Your task to perform on an android device: Open the calendar and show me this week's events? Image 0: 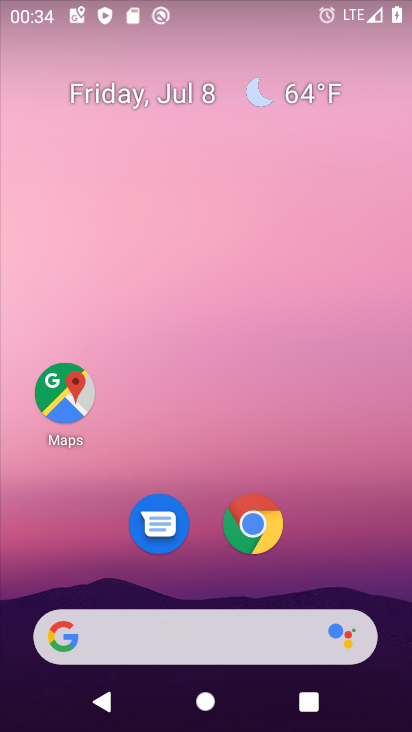
Step 0: drag from (330, 525) to (335, 7)
Your task to perform on an android device: Open the calendar and show me this week's events? Image 1: 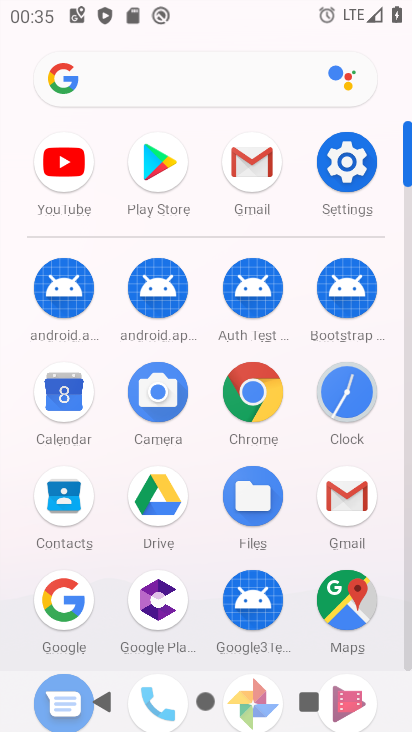
Step 1: click (82, 370)
Your task to perform on an android device: Open the calendar and show me this week's events? Image 2: 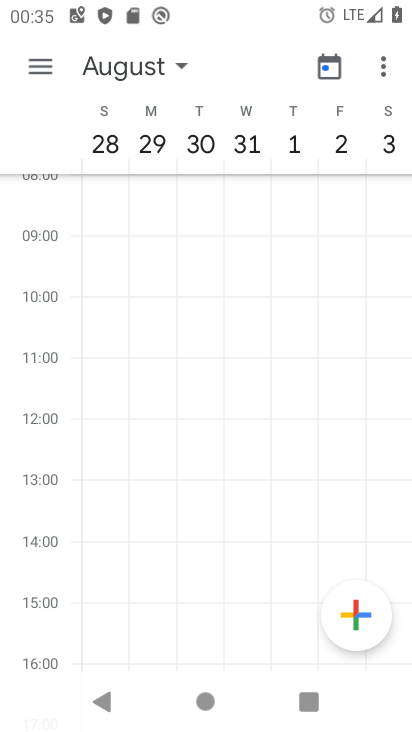
Step 2: click (36, 62)
Your task to perform on an android device: Open the calendar and show me this week's events? Image 3: 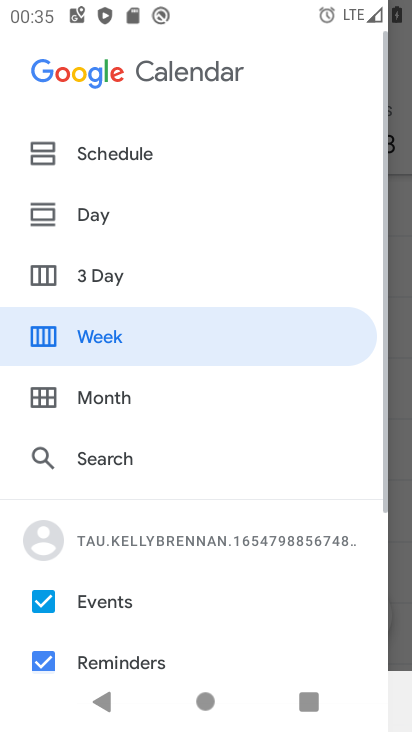
Step 3: click (78, 401)
Your task to perform on an android device: Open the calendar and show me this week's events? Image 4: 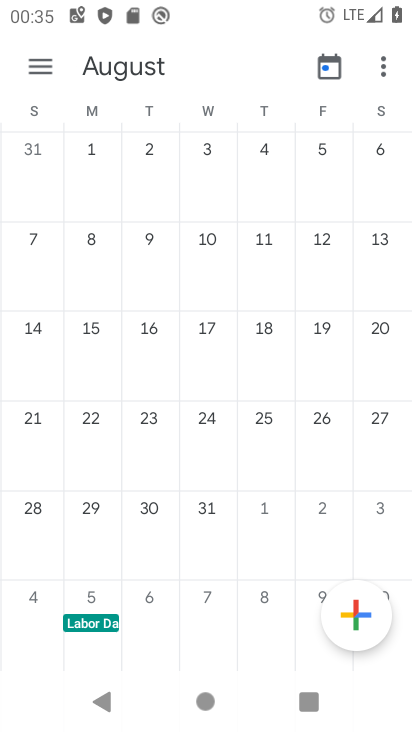
Step 4: drag from (115, 387) to (411, 389)
Your task to perform on an android device: Open the calendar and show me this week's events? Image 5: 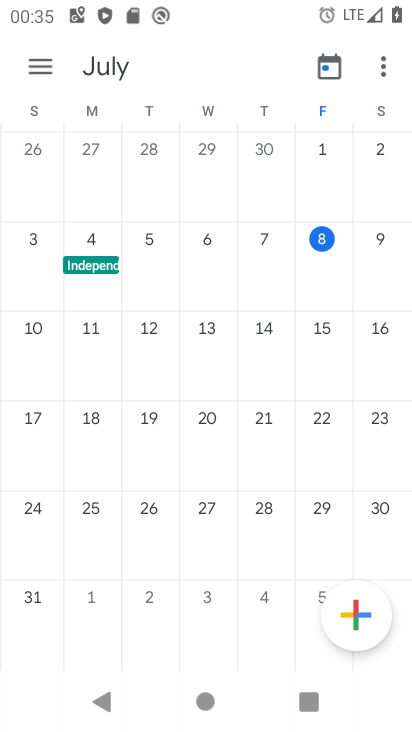
Step 5: click (326, 262)
Your task to perform on an android device: Open the calendar and show me this week's events? Image 6: 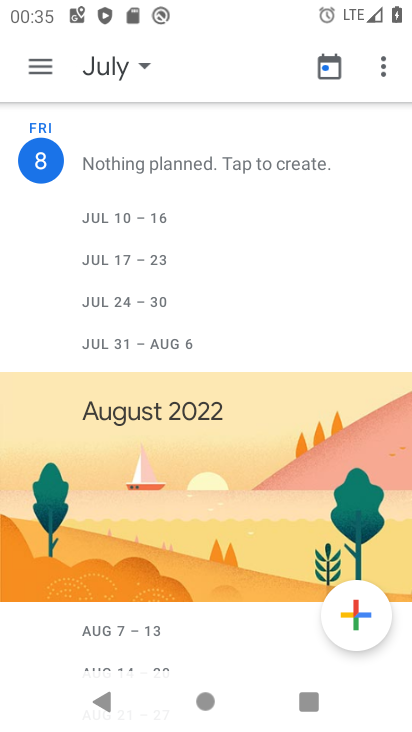
Step 6: click (42, 54)
Your task to perform on an android device: Open the calendar and show me this week's events? Image 7: 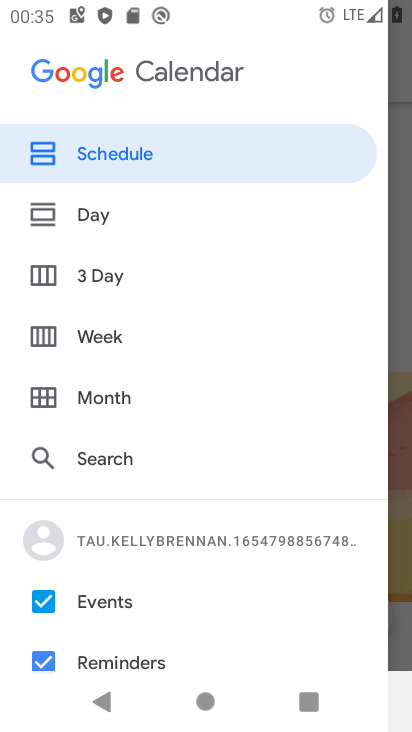
Step 7: click (45, 335)
Your task to perform on an android device: Open the calendar and show me this week's events? Image 8: 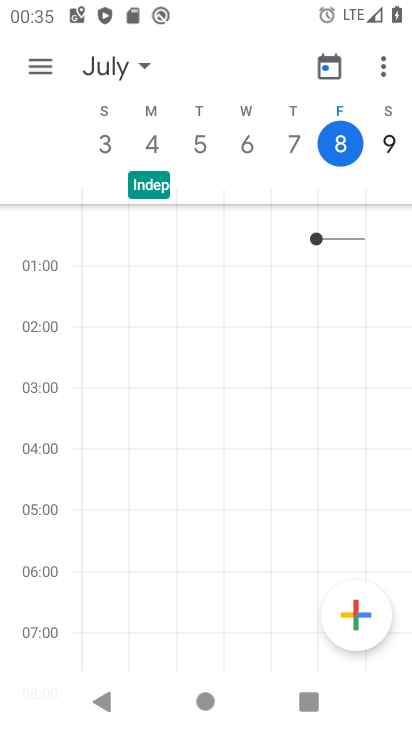
Step 8: task complete